Your task to perform on an android device: turn smart compose on in the gmail app Image 0: 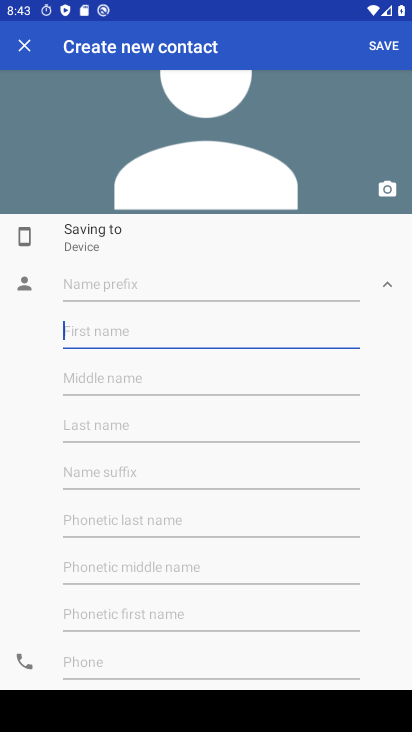
Step 0: press home button
Your task to perform on an android device: turn smart compose on in the gmail app Image 1: 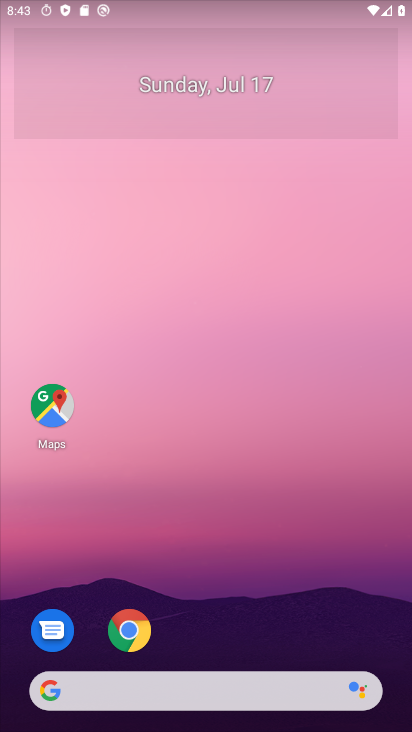
Step 1: drag from (66, 624) to (358, 34)
Your task to perform on an android device: turn smart compose on in the gmail app Image 2: 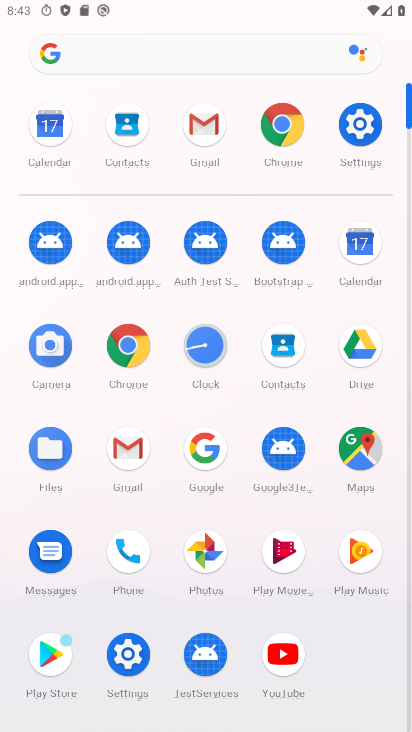
Step 2: click (117, 456)
Your task to perform on an android device: turn smart compose on in the gmail app Image 3: 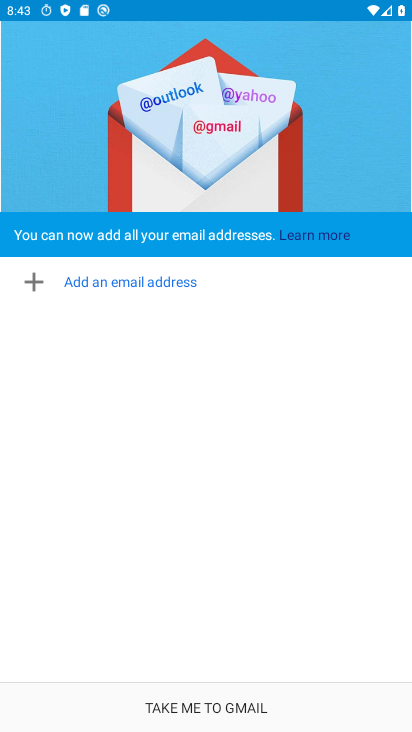
Step 3: click (212, 719)
Your task to perform on an android device: turn smart compose on in the gmail app Image 4: 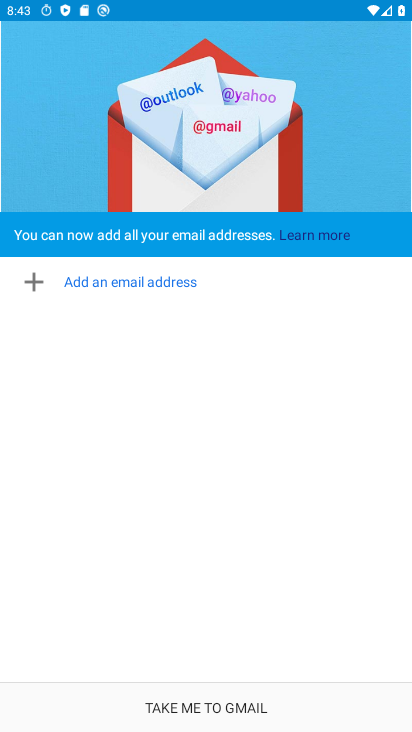
Step 4: click (208, 709)
Your task to perform on an android device: turn smart compose on in the gmail app Image 5: 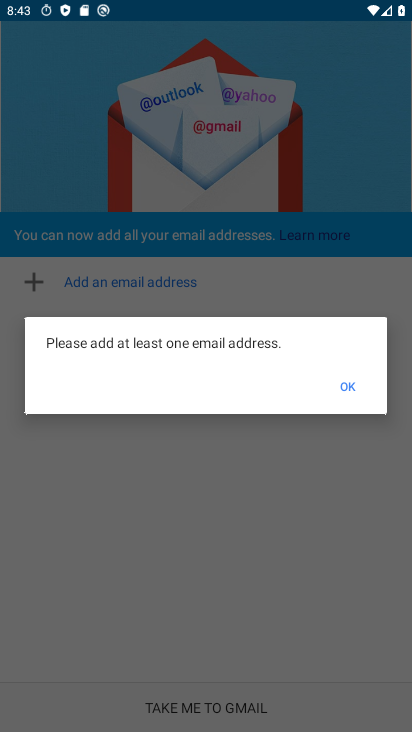
Step 5: click (357, 386)
Your task to perform on an android device: turn smart compose on in the gmail app Image 6: 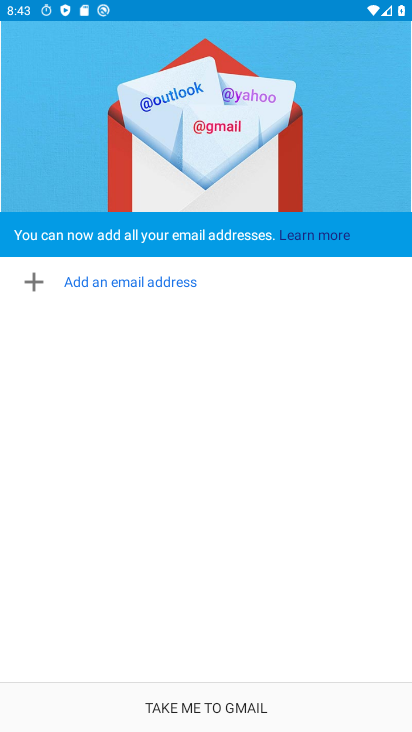
Step 6: task complete